Your task to perform on an android device: turn off javascript in the chrome app Image 0: 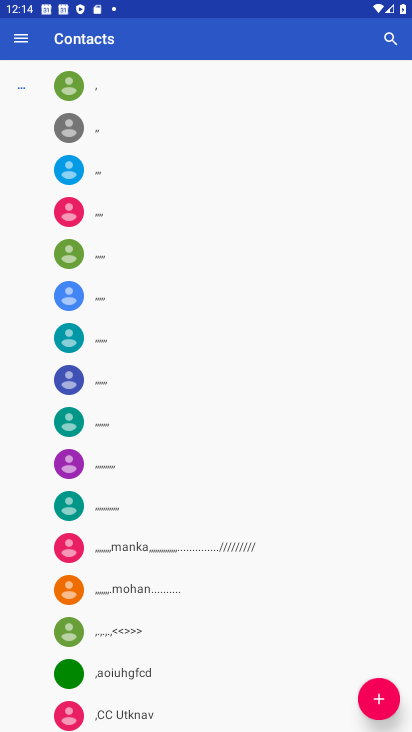
Step 0: press home button
Your task to perform on an android device: turn off javascript in the chrome app Image 1: 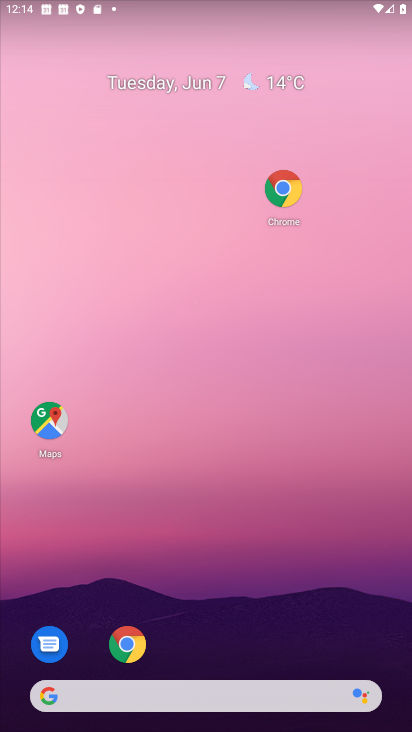
Step 1: click (284, 188)
Your task to perform on an android device: turn off javascript in the chrome app Image 2: 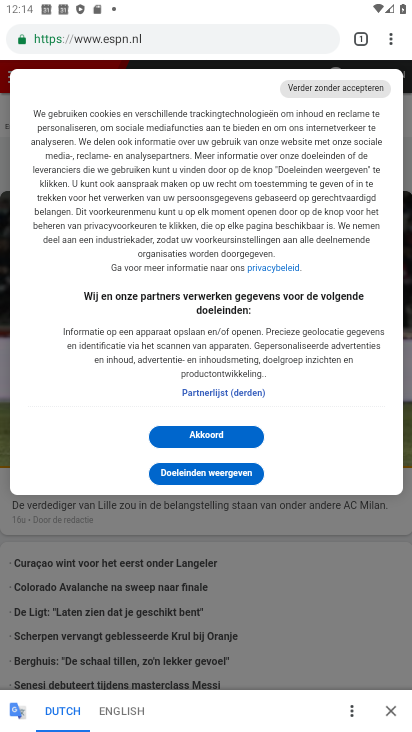
Step 2: click (391, 39)
Your task to perform on an android device: turn off javascript in the chrome app Image 3: 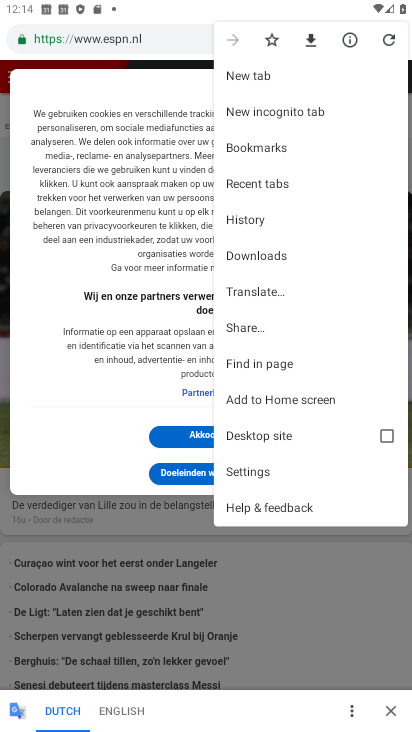
Step 3: click (273, 469)
Your task to perform on an android device: turn off javascript in the chrome app Image 4: 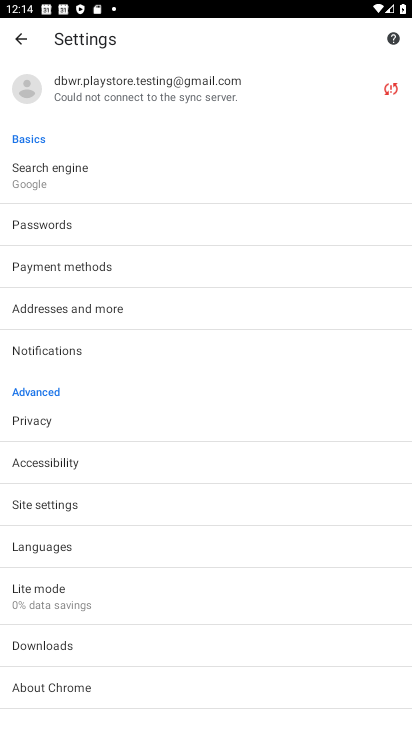
Step 4: click (72, 498)
Your task to perform on an android device: turn off javascript in the chrome app Image 5: 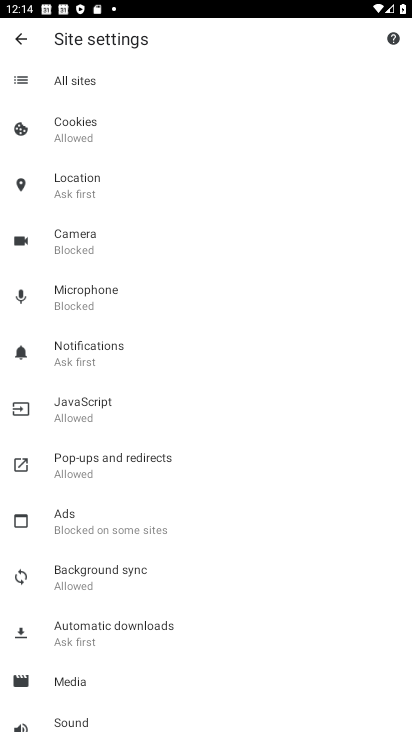
Step 5: click (100, 404)
Your task to perform on an android device: turn off javascript in the chrome app Image 6: 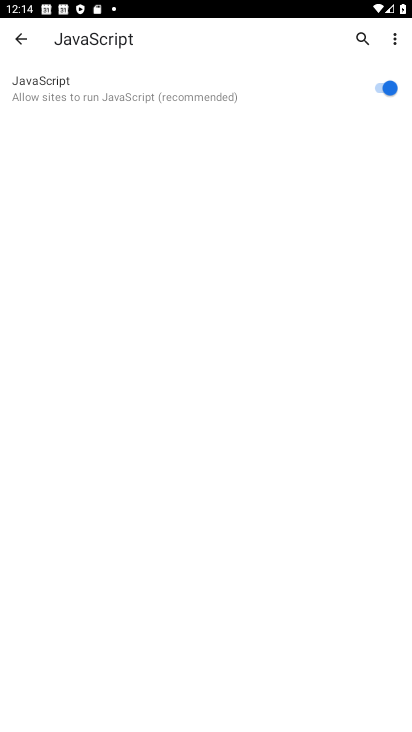
Step 6: click (385, 83)
Your task to perform on an android device: turn off javascript in the chrome app Image 7: 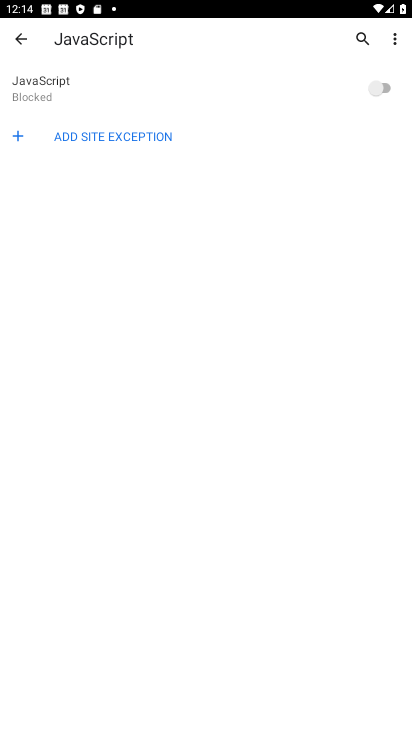
Step 7: task complete